Your task to perform on an android device: change keyboard looks Image 0: 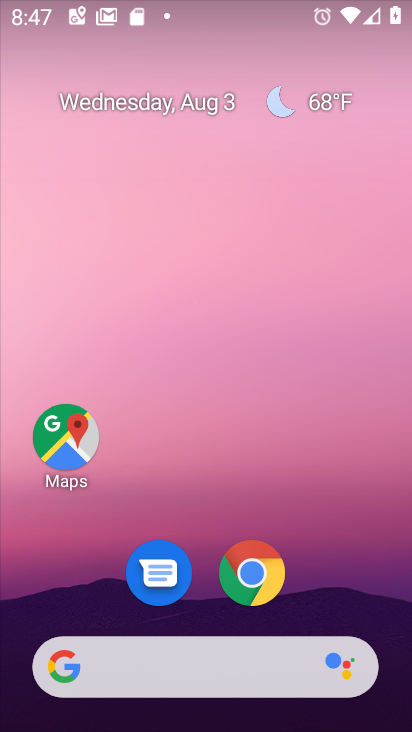
Step 0: drag from (352, 553) to (293, 26)
Your task to perform on an android device: change keyboard looks Image 1: 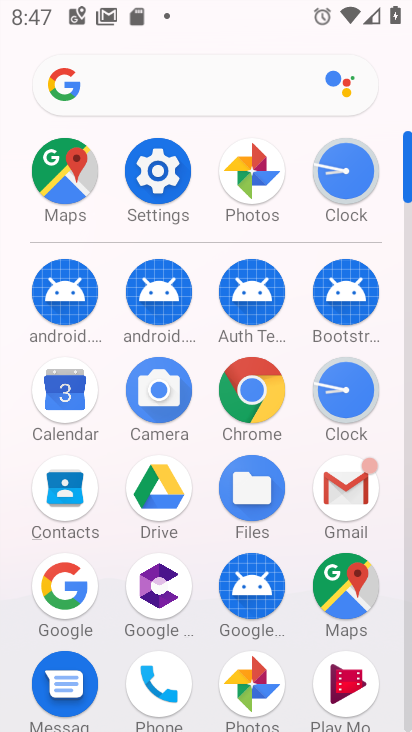
Step 1: click (157, 175)
Your task to perform on an android device: change keyboard looks Image 2: 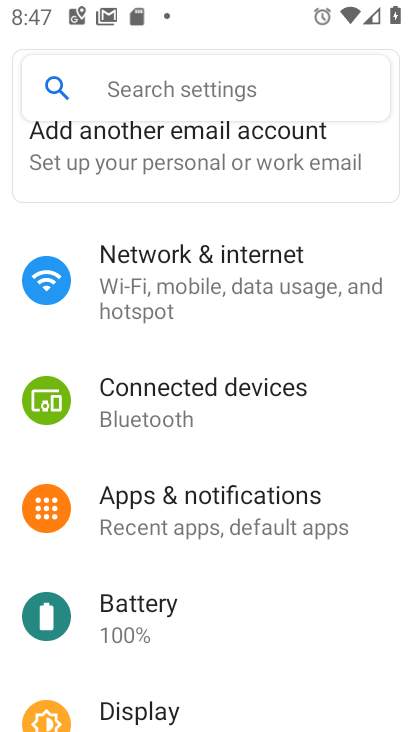
Step 2: drag from (365, 575) to (343, 25)
Your task to perform on an android device: change keyboard looks Image 3: 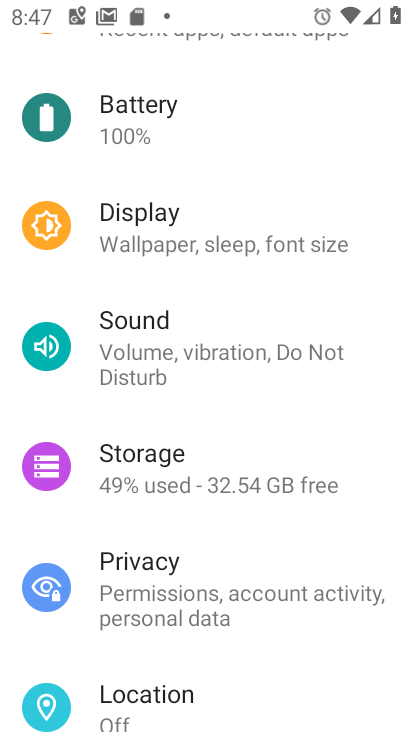
Step 3: drag from (378, 662) to (339, 107)
Your task to perform on an android device: change keyboard looks Image 4: 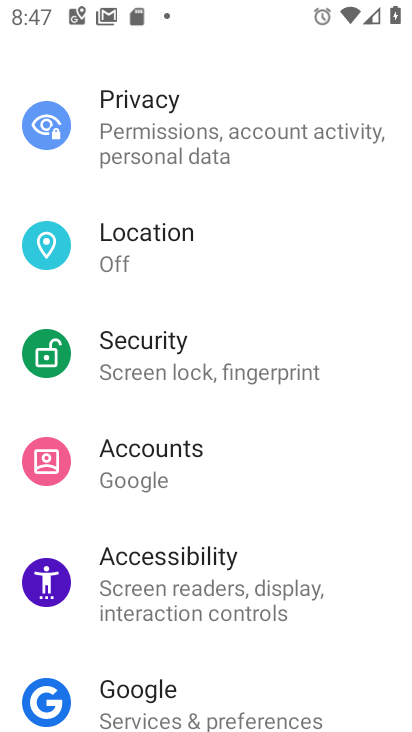
Step 4: drag from (360, 643) to (304, 27)
Your task to perform on an android device: change keyboard looks Image 5: 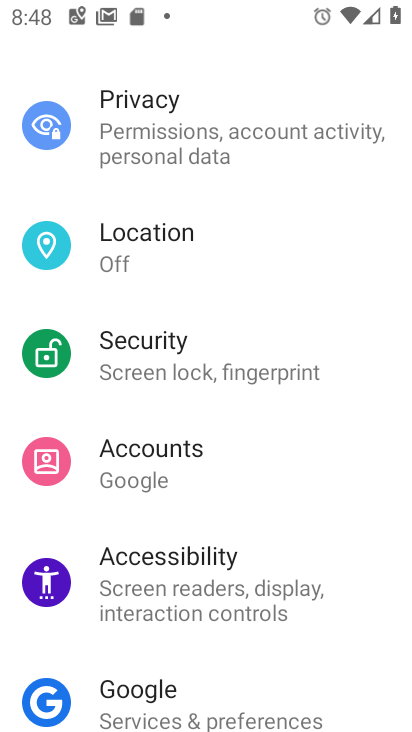
Step 5: drag from (361, 643) to (363, 105)
Your task to perform on an android device: change keyboard looks Image 6: 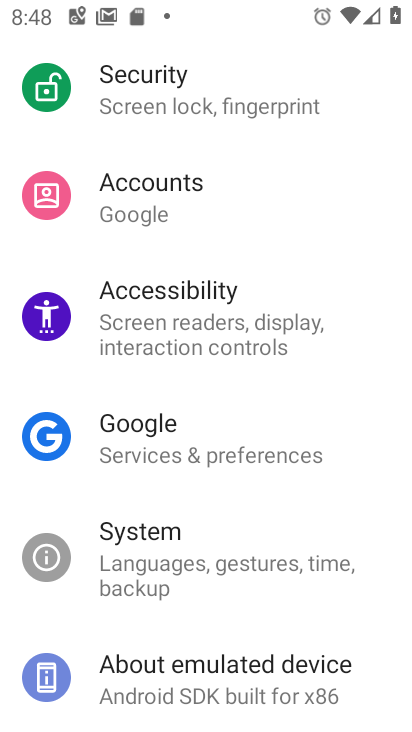
Step 6: click (178, 572)
Your task to perform on an android device: change keyboard looks Image 7: 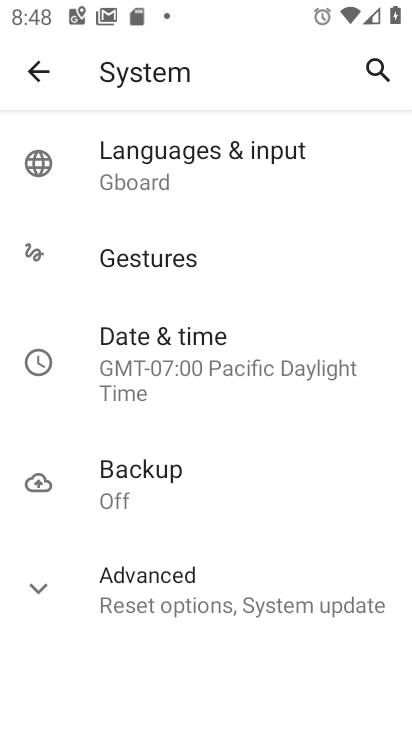
Step 7: click (138, 167)
Your task to perform on an android device: change keyboard looks Image 8: 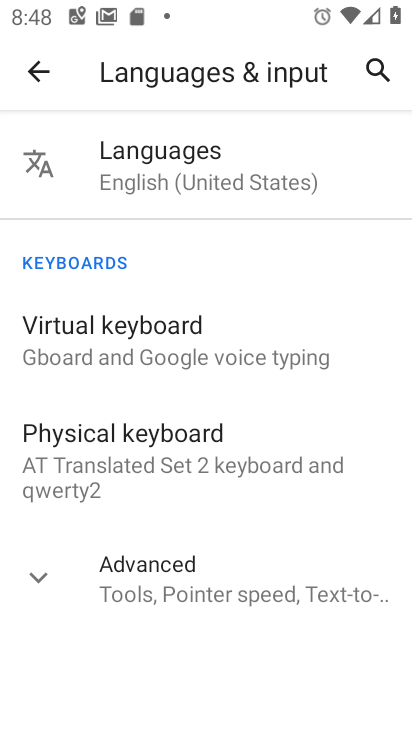
Step 8: click (112, 357)
Your task to perform on an android device: change keyboard looks Image 9: 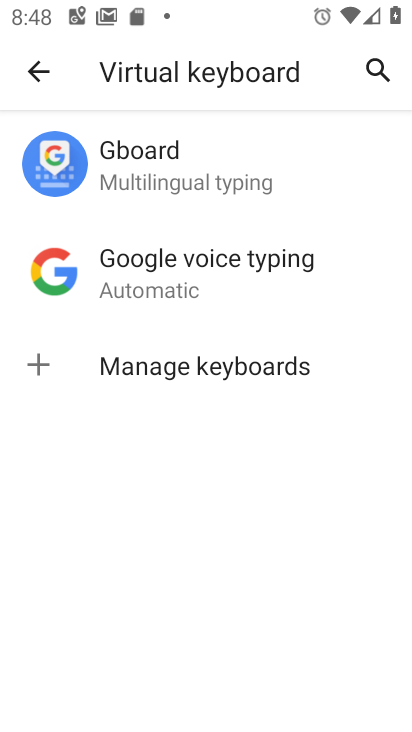
Step 9: click (87, 200)
Your task to perform on an android device: change keyboard looks Image 10: 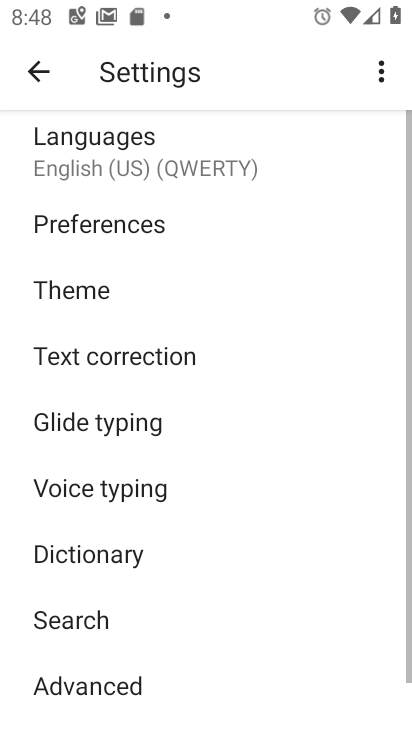
Step 10: click (85, 290)
Your task to perform on an android device: change keyboard looks Image 11: 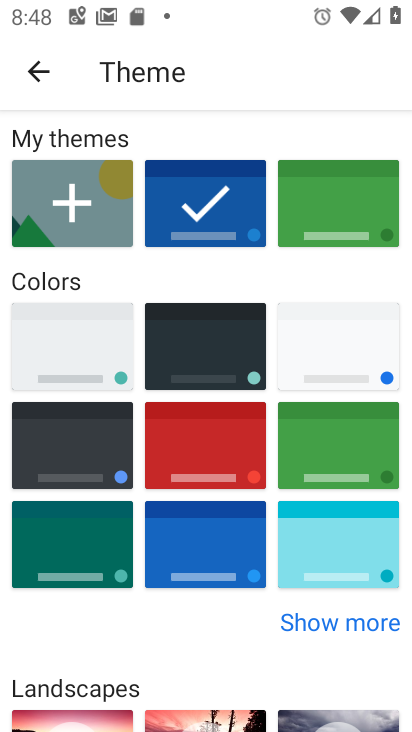
Step 11: click (343, 543)
Your task to perform on an android device: change keyboard looks Image 12: 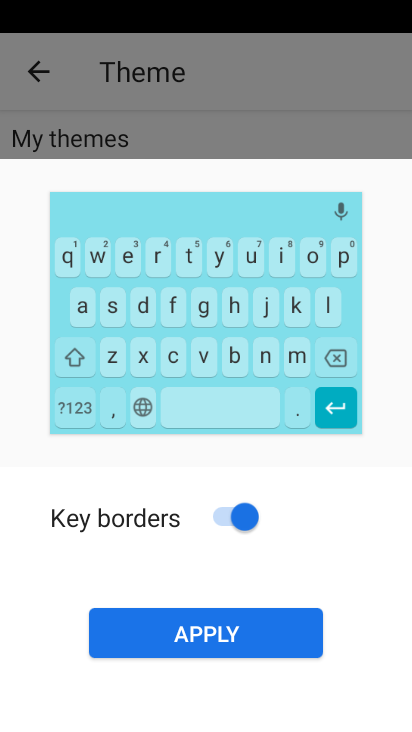
Step 12: click (235, 624)
Your task to perform on an android device: change keyboard looks Image 13: 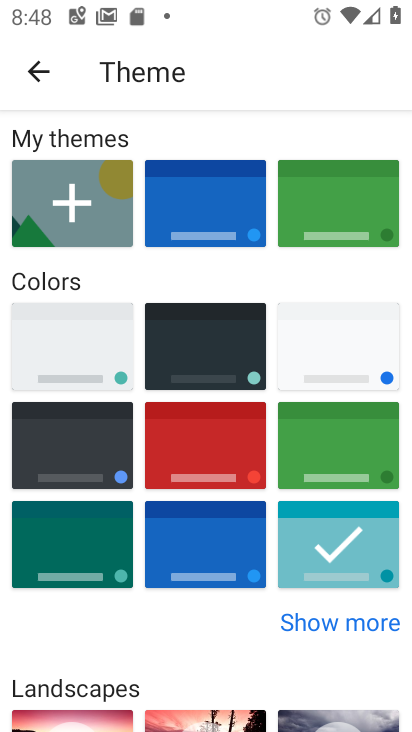
Step 13: task complete